Your task to perform on an android device: turn on notifications settings in the gmail app Image 0: 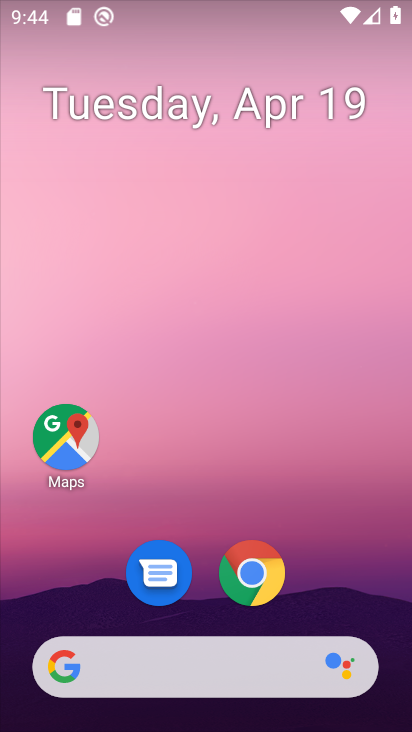
Step 0: drag from (202, 530) to (235, 12)
Your task to perform on an android device: turn on notifications settings in the gmail app Image 1: 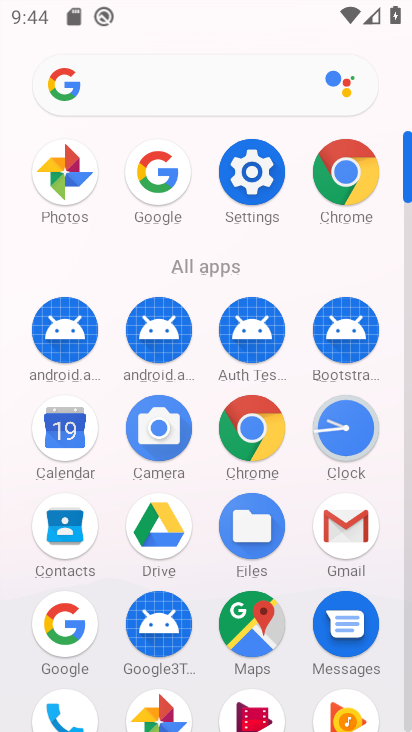
Step 1: click (345, 516)
Your task to perform on an android device: turn on notifications settings in the gmail app Image 2: 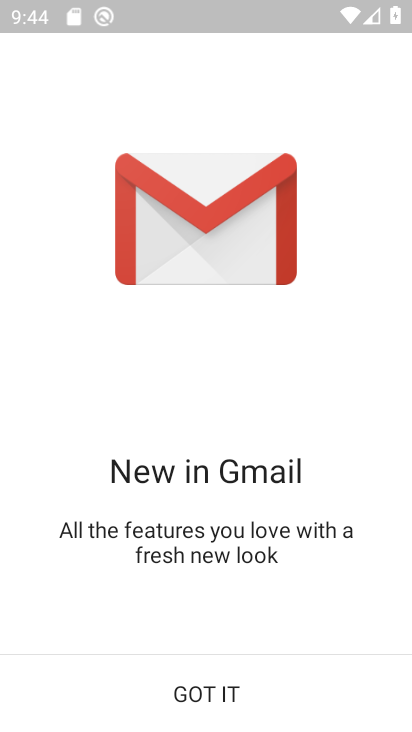
Step 2: click (205, 698)
Your task to perform on an android device: turn on notifications settings in the gmail app Image 3: 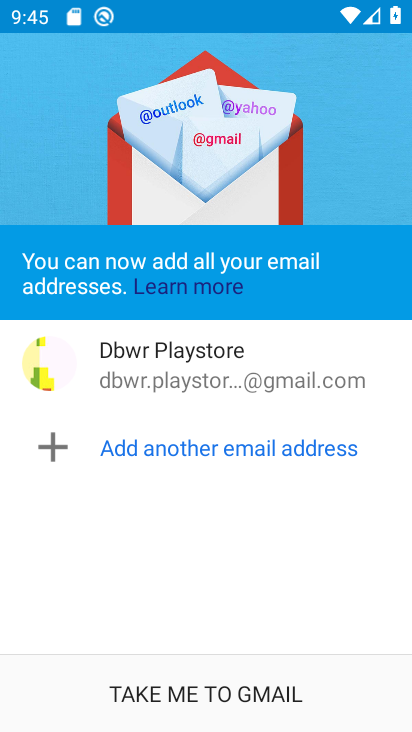
Step 3: click (208, 697)
Your task to perform on an android device: turn on notifications settings in the gmail app Image 4: 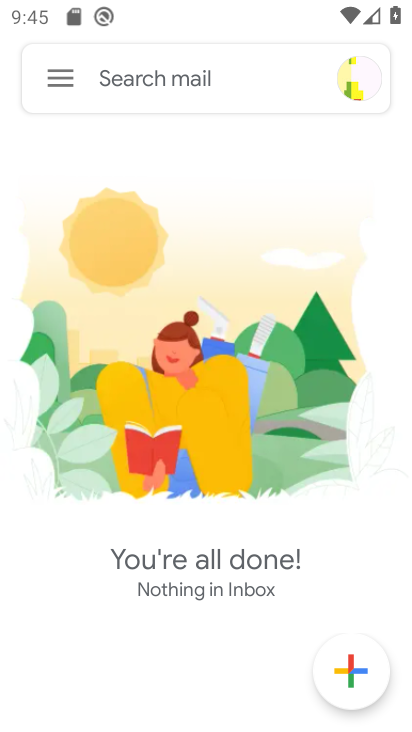
Step 4: click (52, 62)
Your task to perform on an android device: turn on notifications settings in the gmail app Image 5: 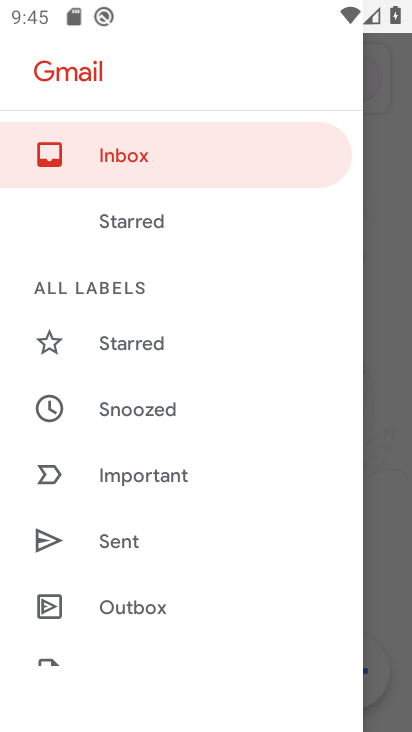
Step 5: drag from (167, 634) to (213, 32)
Your task to perform on an android device: turn on notifications settings in the gmail app Image 6: 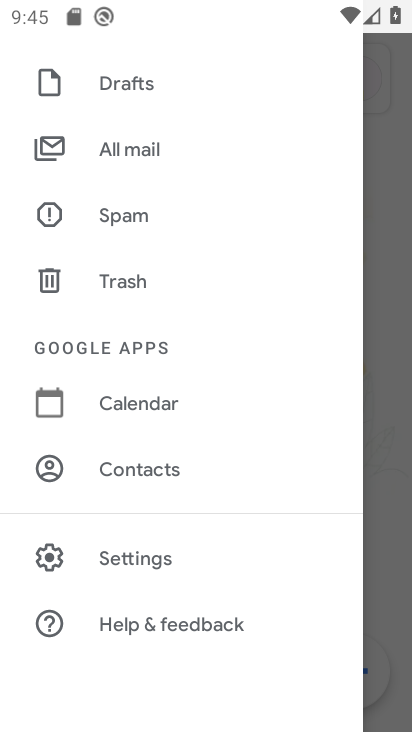
Step 6: click (161, 553)
Your task to perform on an android device: turn on notifications settings in the gmail app Image 7: 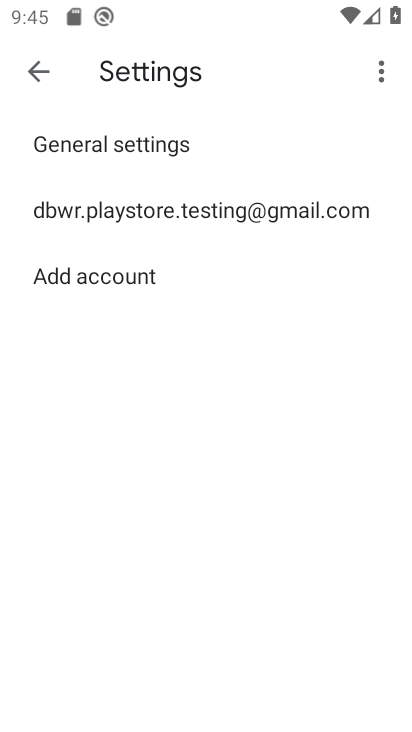
Step 7: click (193, 129)
Your task to perform on an android device: turn on notifications settings in the gmail app Image 8: 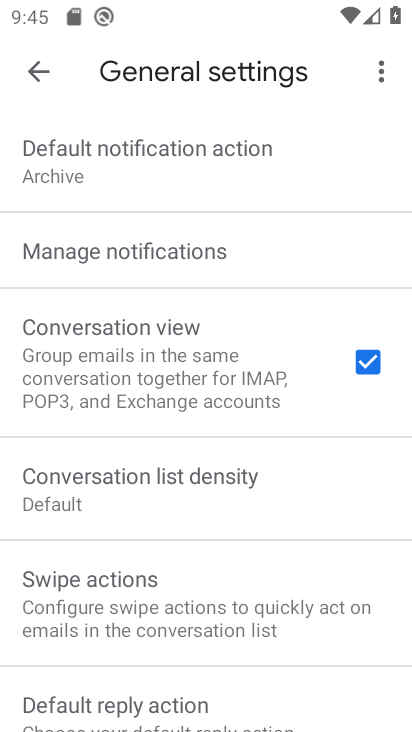
Step 8: click (209, 261)
Your task to perform on an android device: turn on notifications settings in the gmail app Image 9: 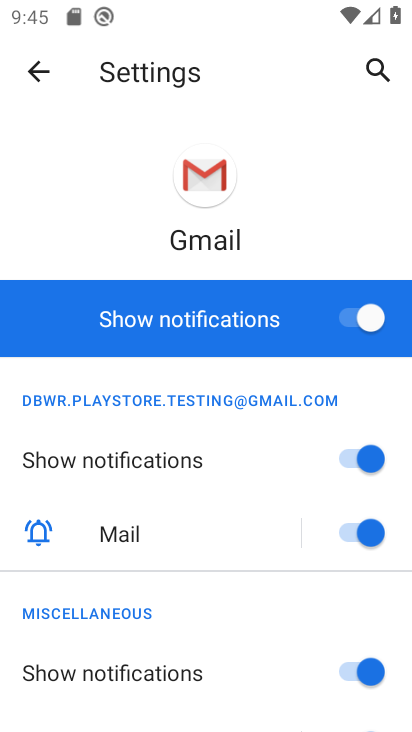
Step 9: task complete